Your task to perform on an android device: Open Google Image 0: 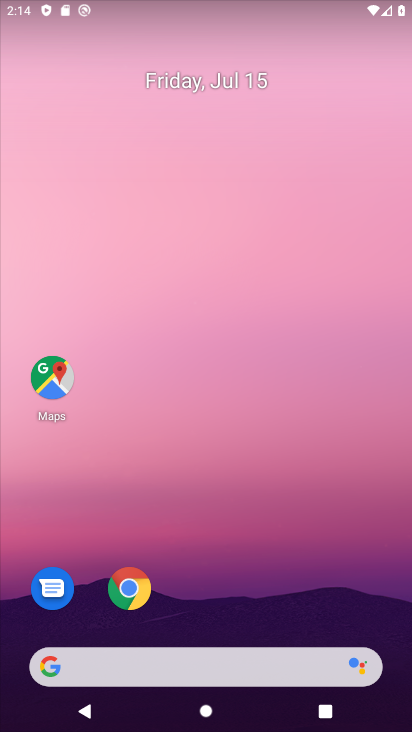
Step 0: click (50, 662)
Your task to perform on an android device: Open Google Image 1: 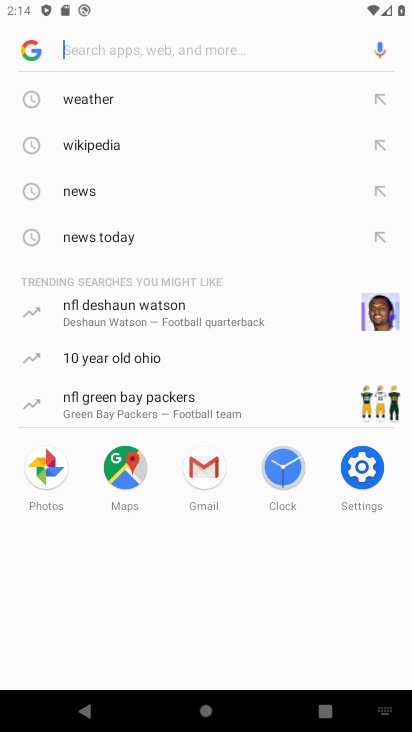
Step 1: click (26, 37)
Your task to perform on an android device: Open Google Image 2: 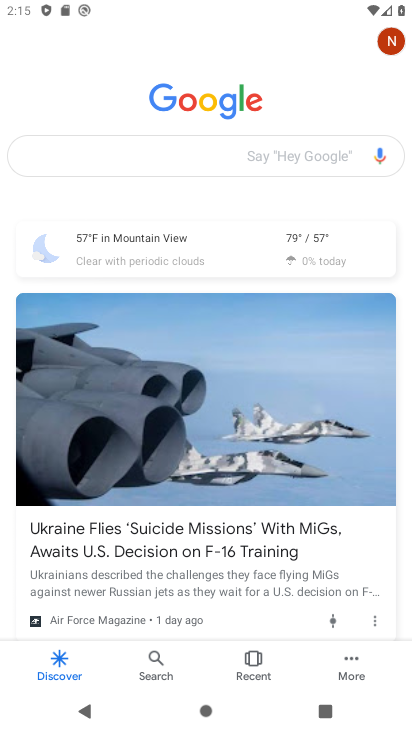
Step 2: task complete